Your task to perform on an android device: Is it going to rain this weekend? Image 0: 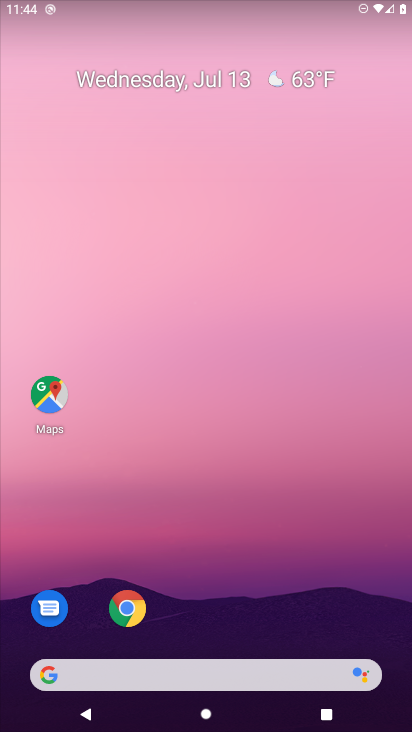
Step 0: press home button
Your task to perform on an android device: Is it going to rain this weekend? Image 1: 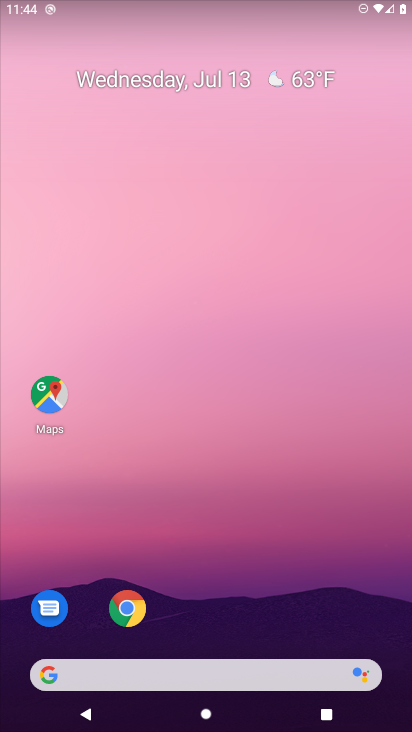
Step 1: click (57, 678)
Your task to perform on an android device: Is it going to rain this weekend? Image 2: 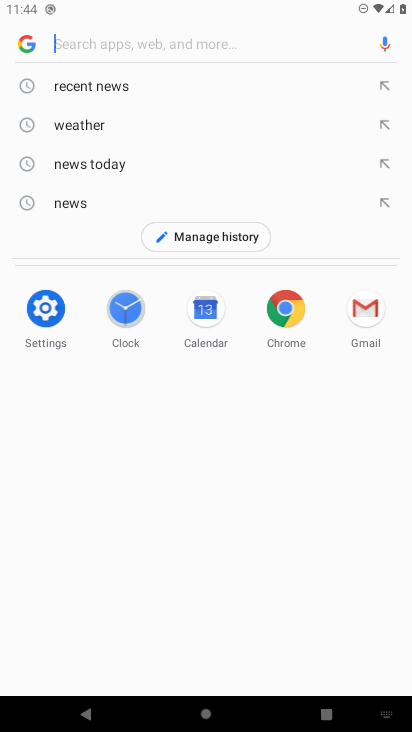
Step 2: press enter
Your task to perform on an android device: Is it going to rain this weekend? Image 3: 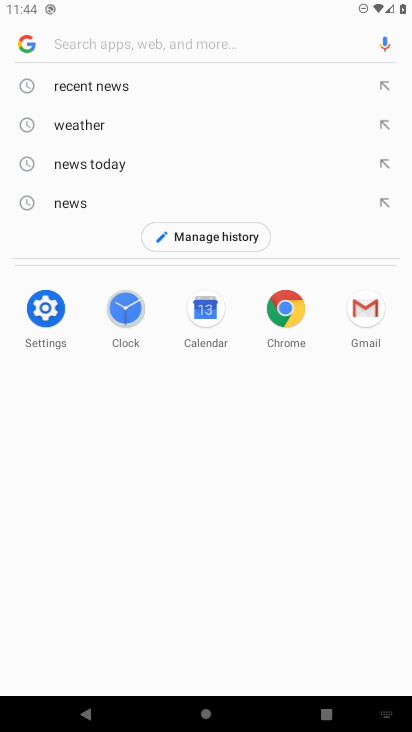
Step 3: type "rain this weekend?"
Your task to perform on an android device: Is it going to rain this weekend? Image 4: 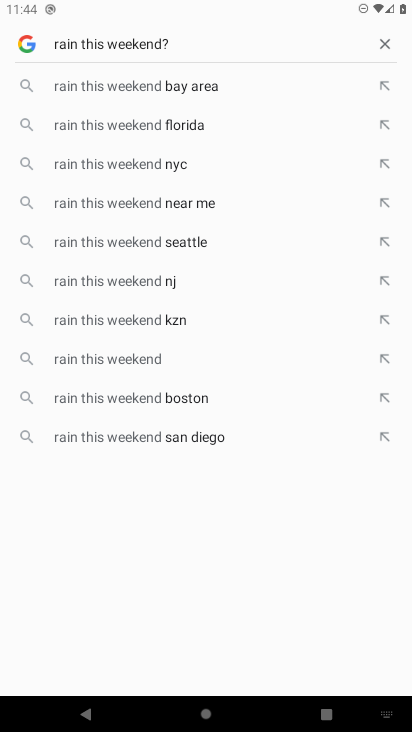
Step 4: click (146, 361)
Your task to perform on an android device: Is it going to rain this weekend? Image 5: 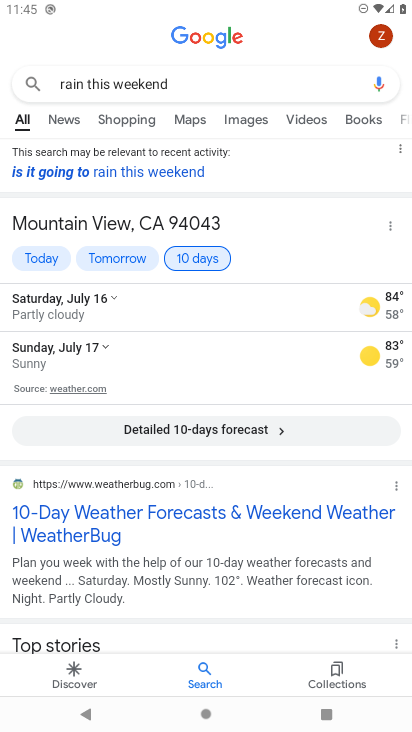
Step 5: task complete